Your task to perform on an android device: open chrome privacy settings Image 0: 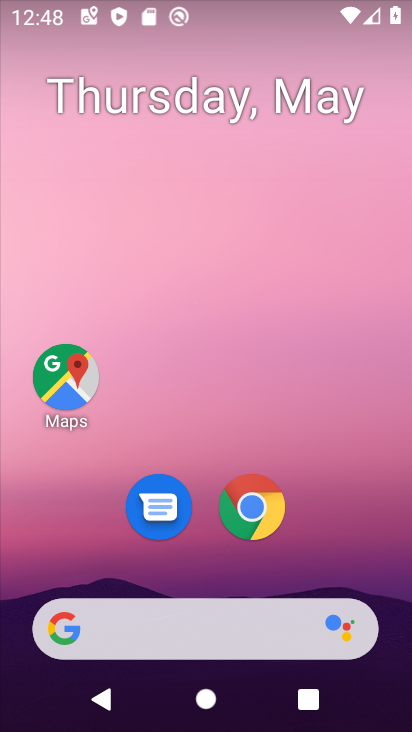
Step 0: drag from (276, 0) to (322, 36)
Your task to perform on an android device: open chrome privacy settings Image 1: 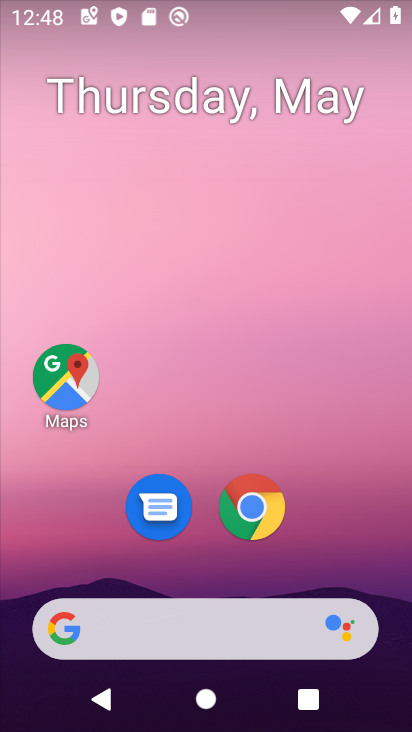
Step 1: drag from (252, 583) to (255, 46)
Your task to perform on an android device: open chrome privacy settings Image 2: 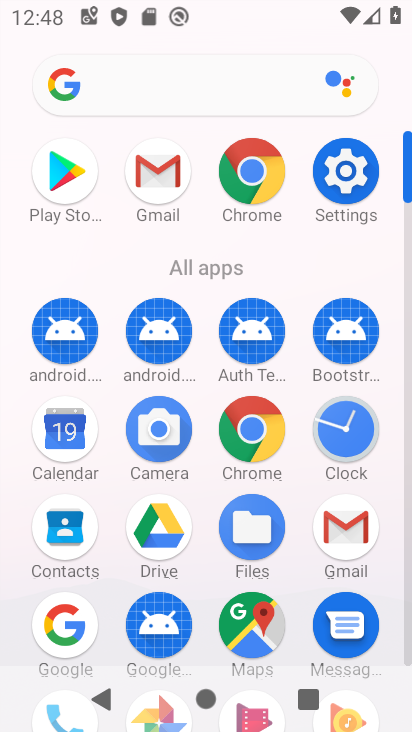
Step 2: click (258, 435)
Your task to perform on an android device: open chrome privacy settings Image 3: 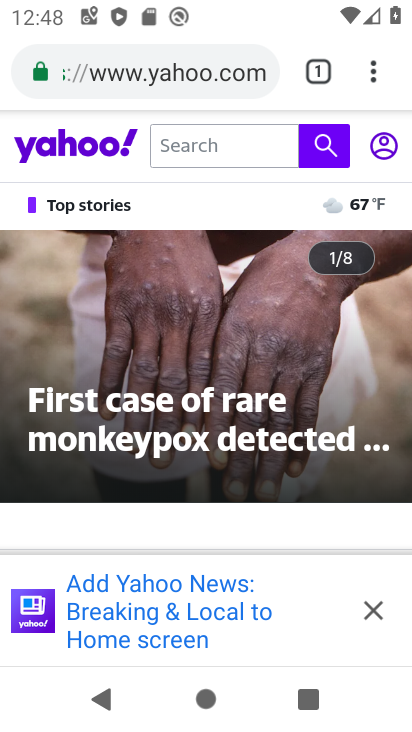
Step 3: click (377, 73)
Your task to perform on an android device: open chrome privacy settings Image 4: 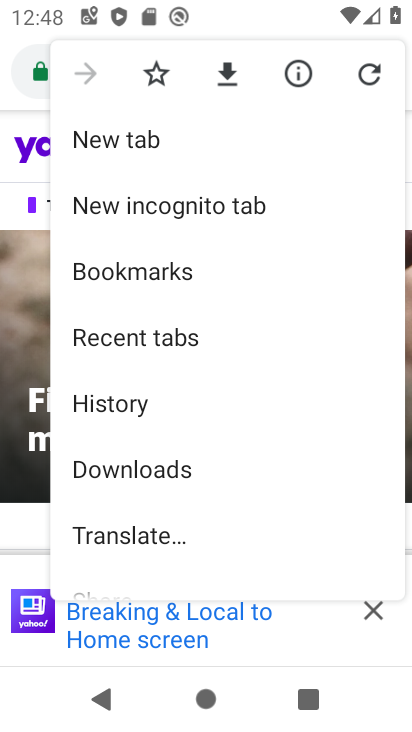
Step 4: drag from (206, 507) to (206, 136)
Your task to perform on an android device: open chrome privacy settings Image 5: 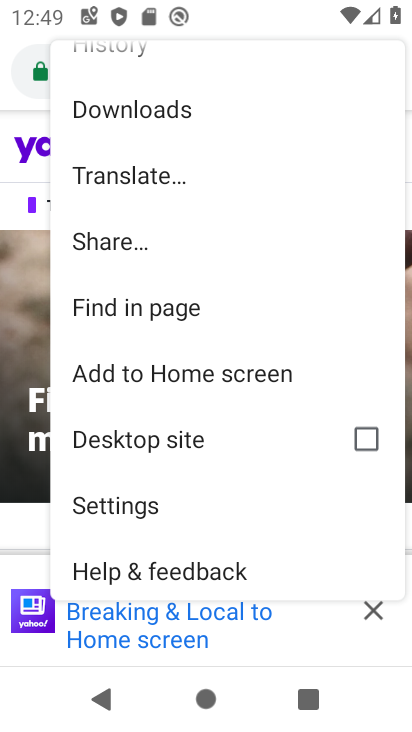
Step 5: click (116, 509)
Your task to perform on an android device: open chrome privacy settings Image 6: 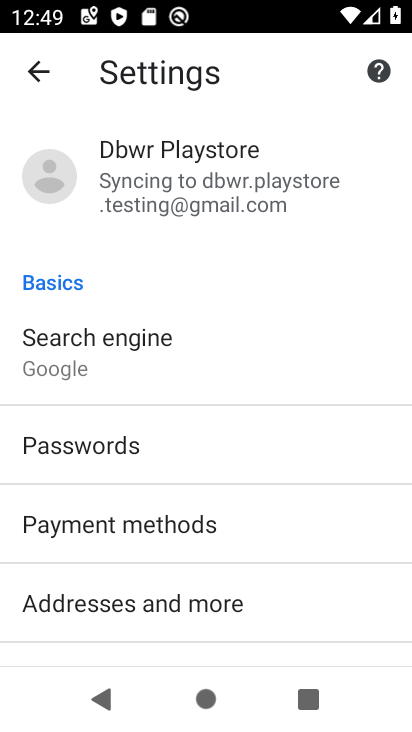
Step 6: drag from (175, 404) to (189, 189)
Your task to perform on an android device: open chrome privacy settings Image 7: 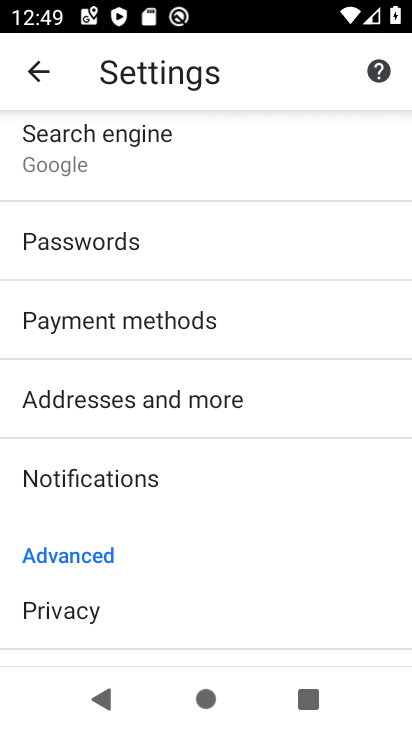
Step 7: click (91, 611)
Your task to perform on an android device: open chrome privacy settings Image 8: 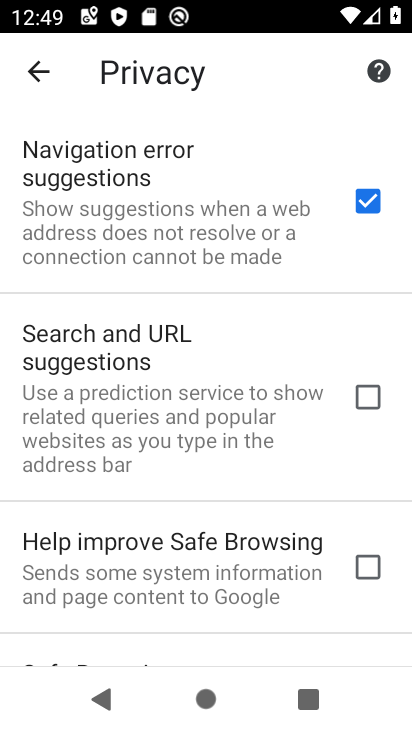
Step 8: task complete